Your task to perform on an android device: read, delete, or share a saved page in the chrome app Image 0: 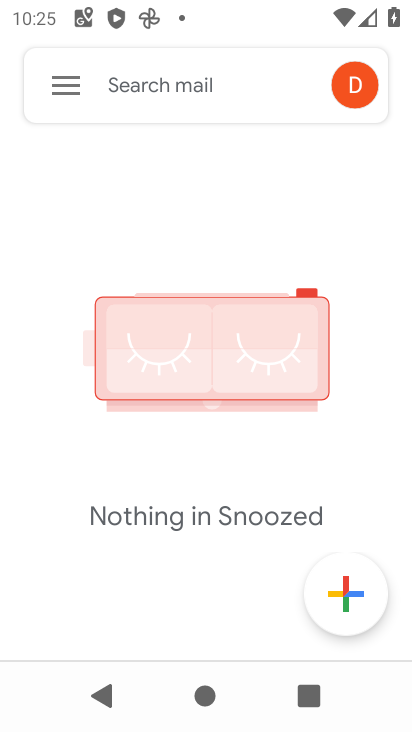
Step 0: press home button
Your task to perform on an android device: read, delete, or share a saved page in the chrome app Image 1: 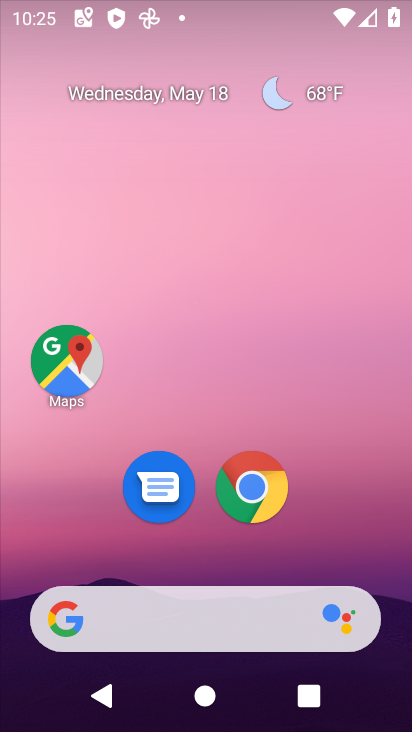
Step 1: drag from (364, 535) to (329, 222)
Your task to perform on an android device: read, delete, or share a saved page in the chrome app Image 2: 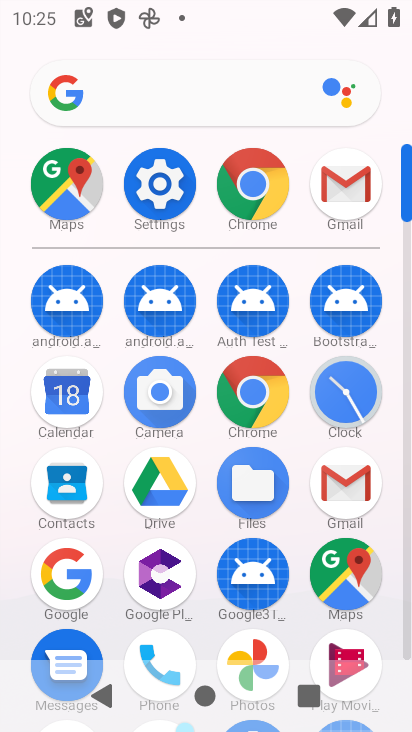
Step 2: click (259, 394)
Your task to perform on an android device: read, delete, or share a saved page in the chrome app Image 3: 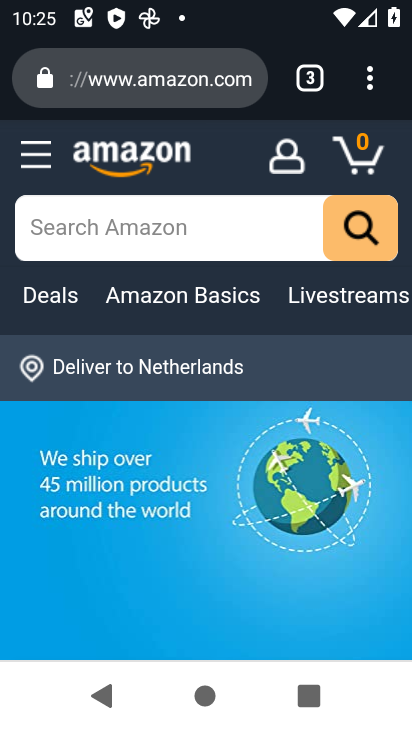
Step 3: task complete